Your task to perform on an android device: turn off translation in the chrome app Image 0: 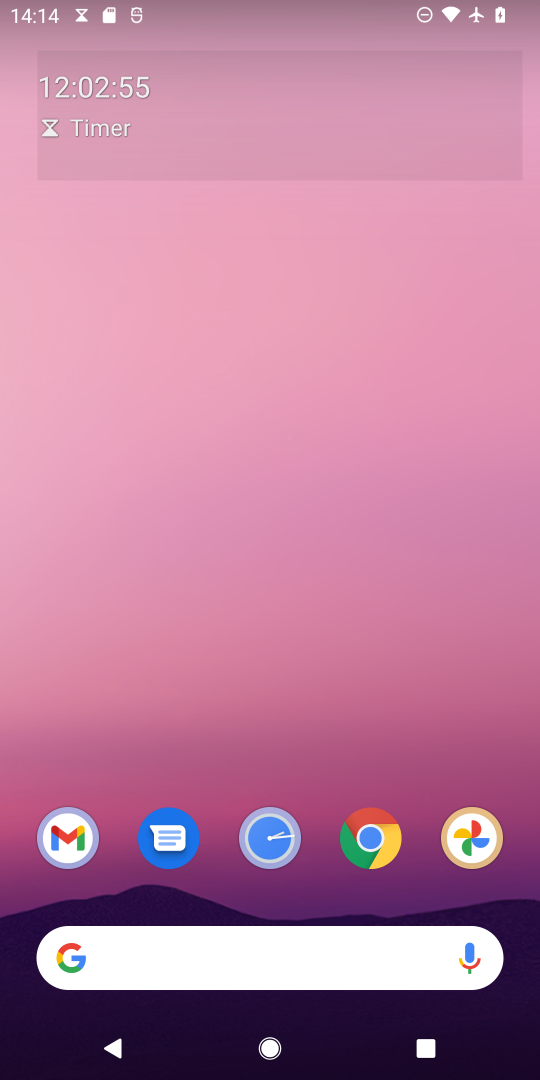
Step 0: press home button
Your task to perform on an android device: turn off translation in the chrome app Image 1: 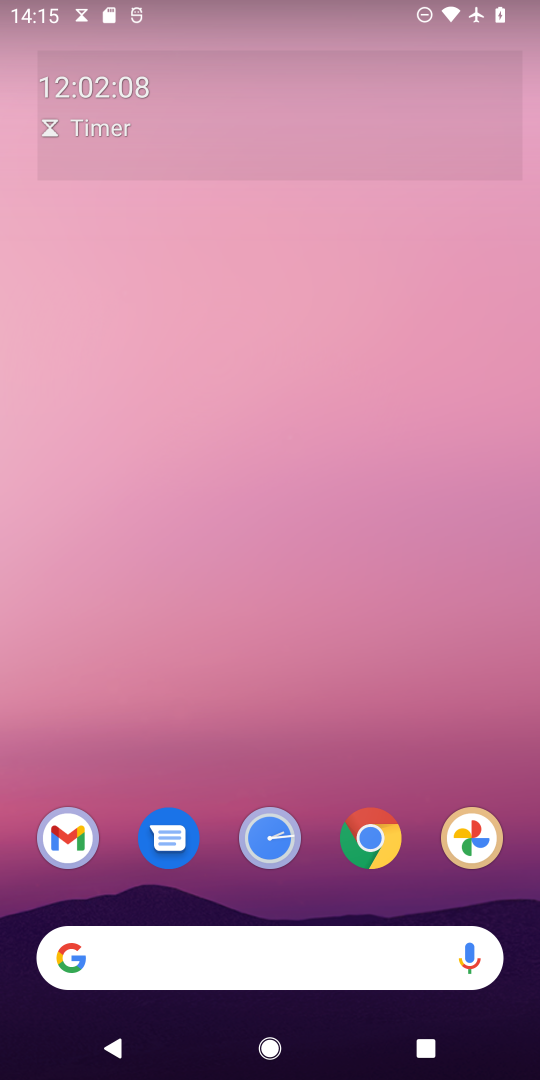
Step 1: drag from (241, 894) to (390, 887)
Your task to perform on an android device: turn off translation in the chrome app Image 2: 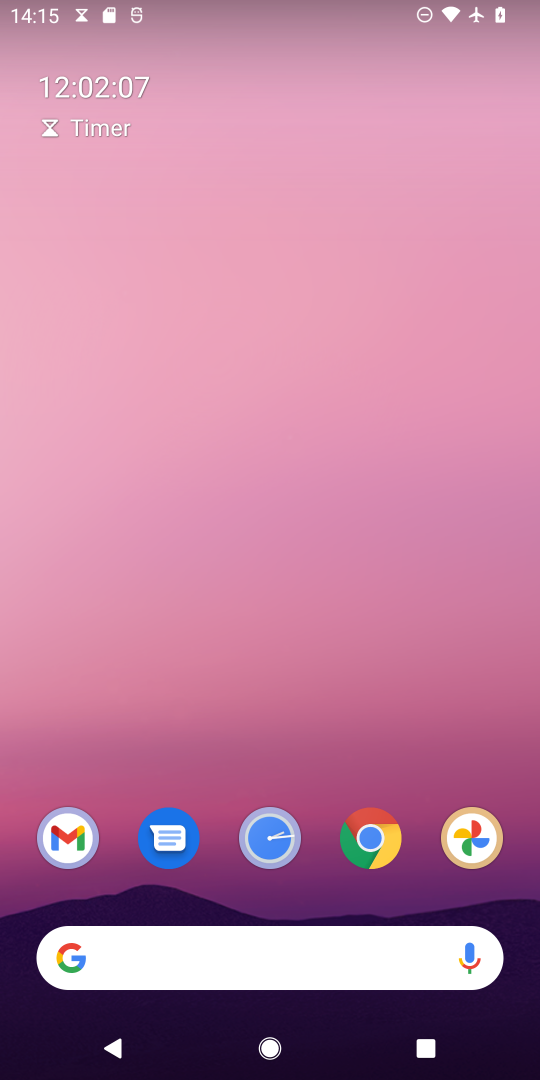
Step 2: click (369, 835)
Your task to perform on an android device: turn off translation in the chrome app Image 3: 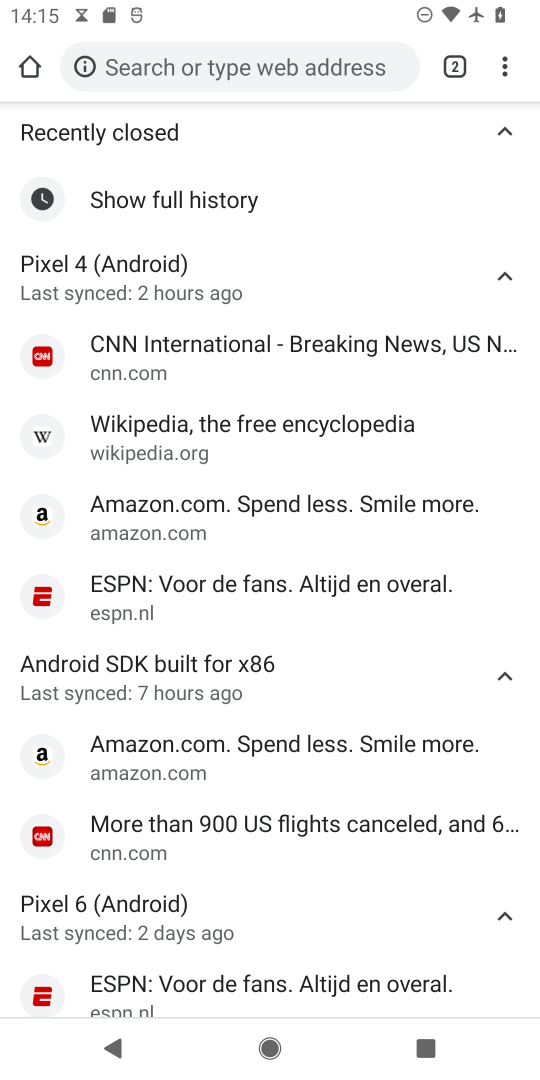
Step 3: drag from (503, 66) to (325, 675)
Your task to perform on an android device: turn off translation in the chrome app Image 4: 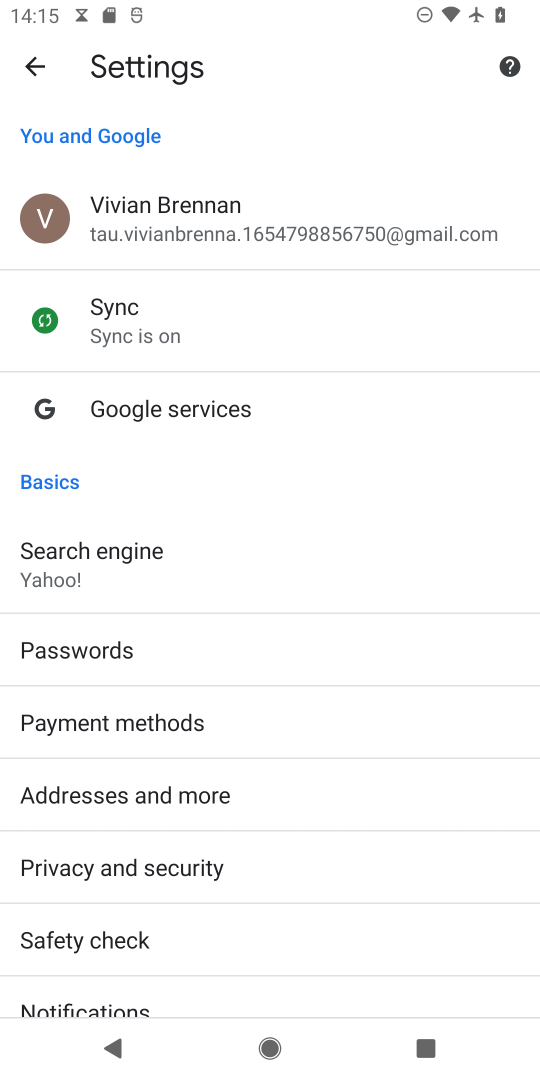
Step 4: drag from (261, 937) to (232, 180)
Your task to perform on an android device: turn off translation in the chrome app Image 5: 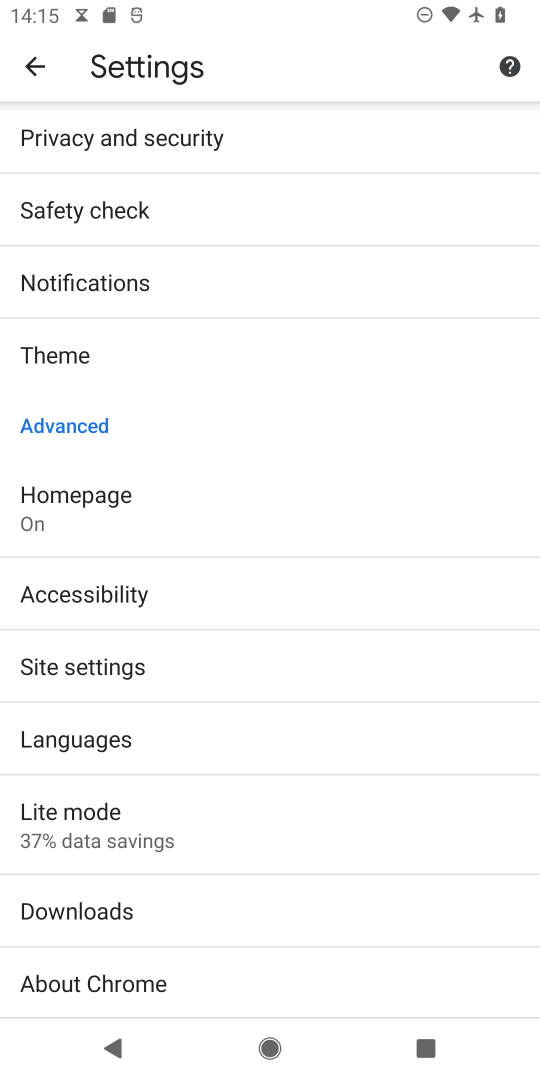
Step 5: click (63, 737)
Your task to perform on an android device: turn off translation in the chrome app Image 6: 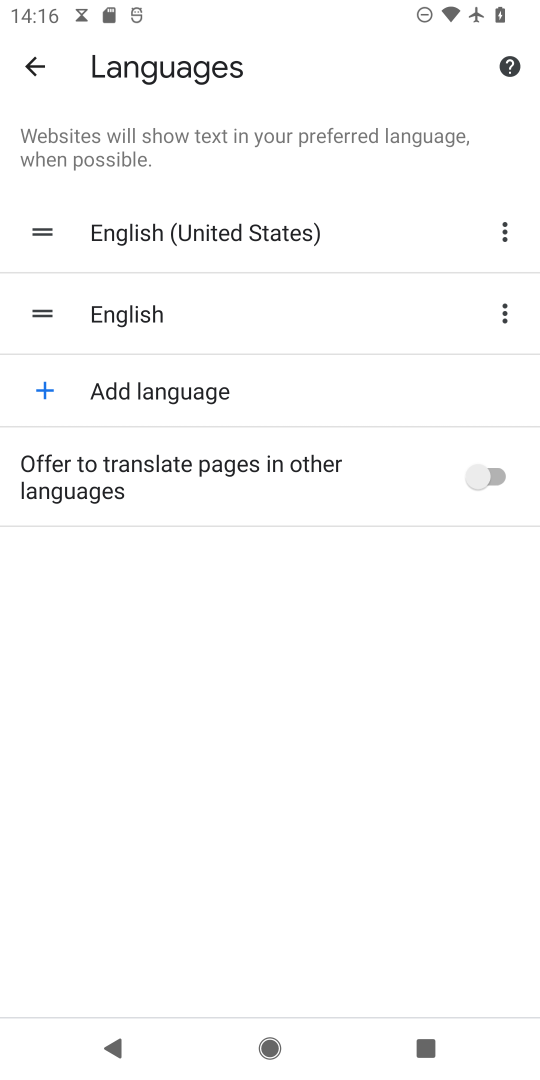
Step 6: task complete